Your task to perform on an android device: all mails in gmail Image 0: 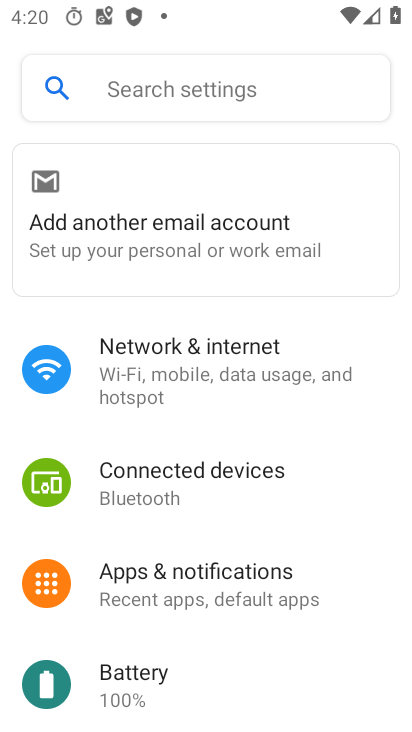
Step 0: press home button
Your task to perform on an android device: all mails in gmail Image 1: 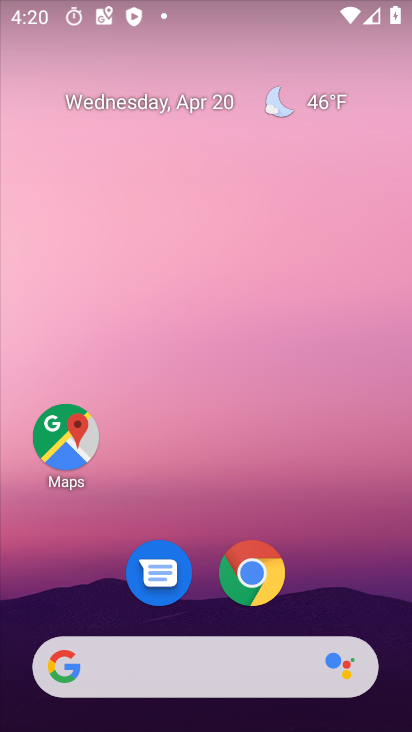
Step 1: drag from (361, 607) to (317, 218)
Your task to perform on an android device: all mails in gmail Image 2: 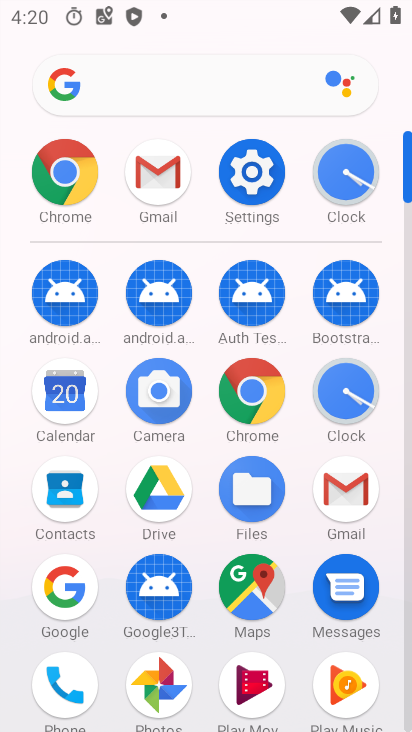
Step 2: click (338, 485)
Your task to perform on an android device: all mails in gmail Image 3: 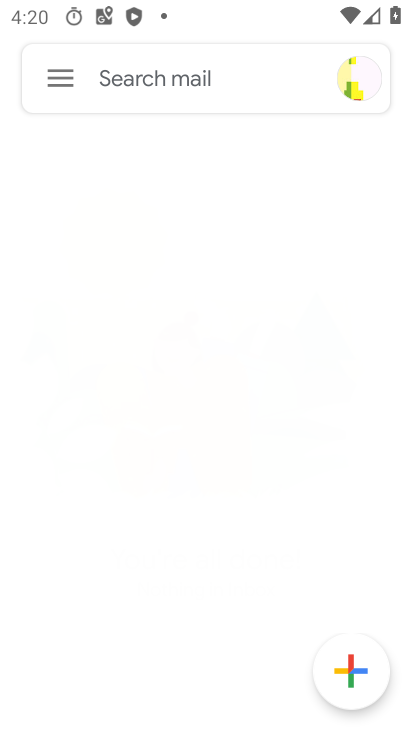
Step 3: click (61, 76)
Your task to perform on an android device: all mails in gmail Image 4: 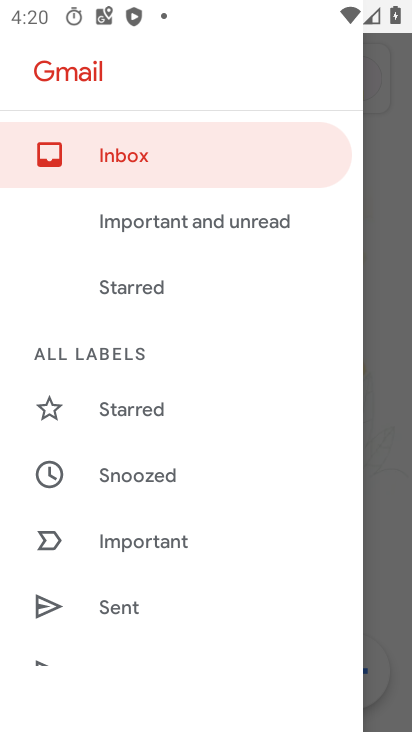
Step 4: drag from (257, 663) to (244, 304)
Your task to perform on an android device: all mails in gmail Image 5: 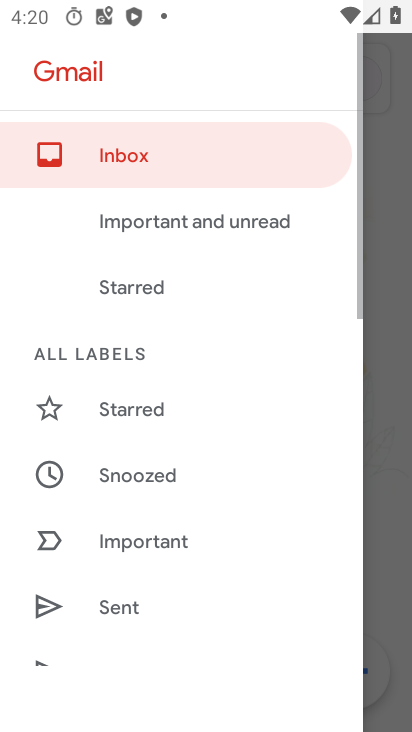
Step 5: drag from (260, 357) to (258, 313)
Your task to perform on an android device: all mails in gmail Image 6: 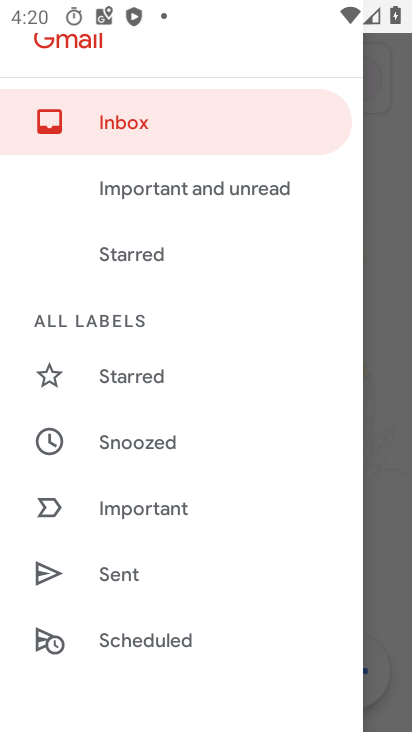
Step 6: drag from (270, 625) to (219, 259)
Your task to perform on an android device: all mails in gmail Image 7: 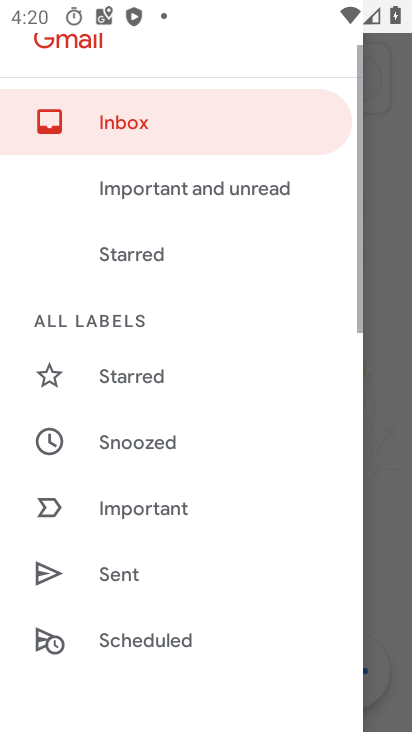
Step 7: drag from (265, 513) to (271, 309)
Your task to perform on an android device: all mails in gmail Image 8: 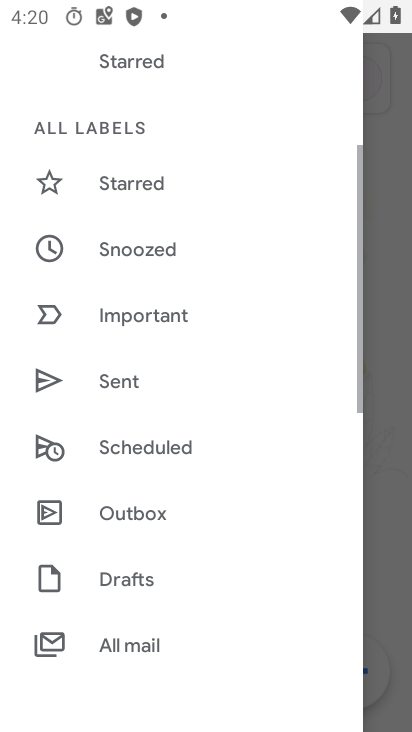
Step 8: click (288, 262)
Your task to perform on an android device: all mails in gmail Image 9: 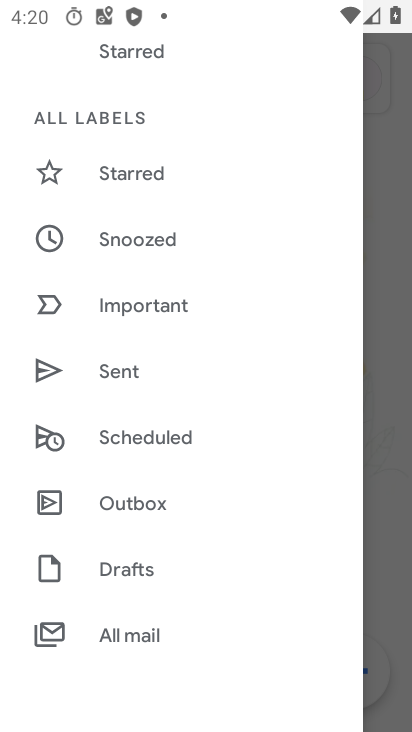
Step 9: click (100, 638)
Your task to perform on an android device: all mails in gmail Image 10: 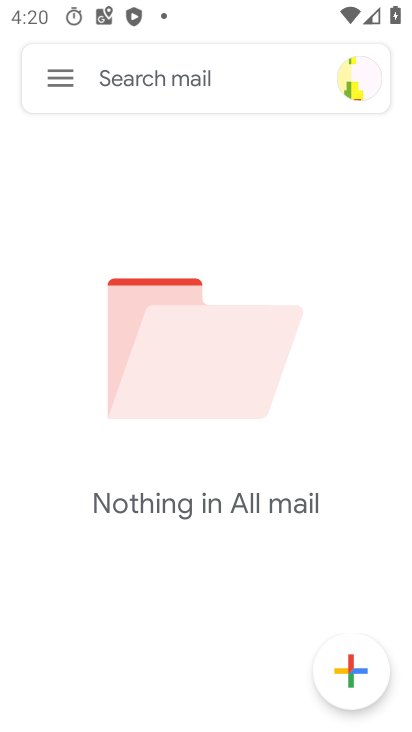
Step 10: task complete